Your task to perform on an android device: Open Youtube and go to the subscriptions tab Image 0: 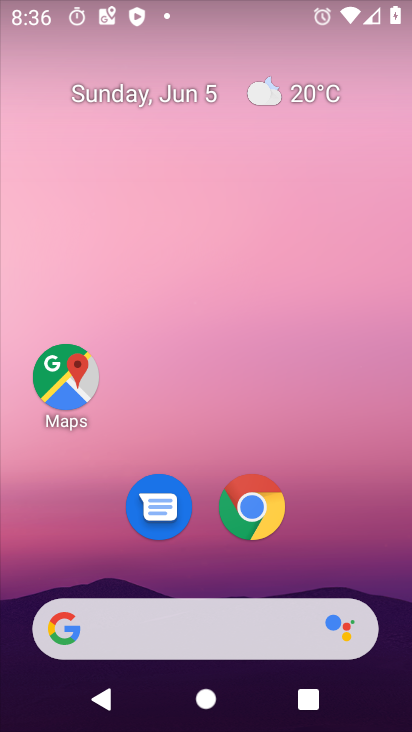
Step 0: drag from (372, 535) to (248, 11)
Your task to perform on an android device: Open Youtube and go to the subscriptions tab Image 1: 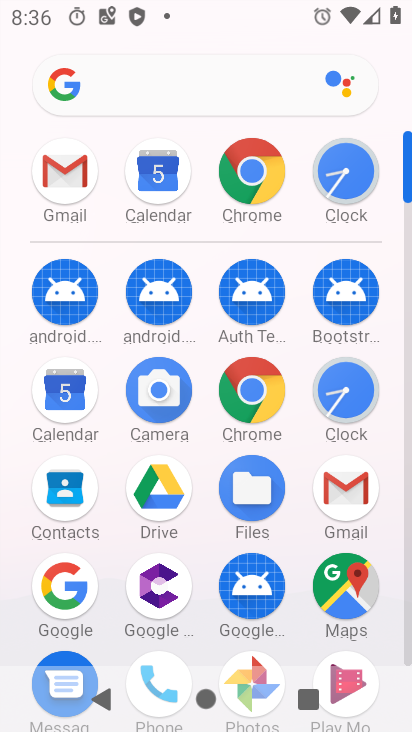
Step 1: drag from (11, 595) to (33, 260)
Your task to perform on an android device: Open Youtube and go to the subscriptions tab Image 2: 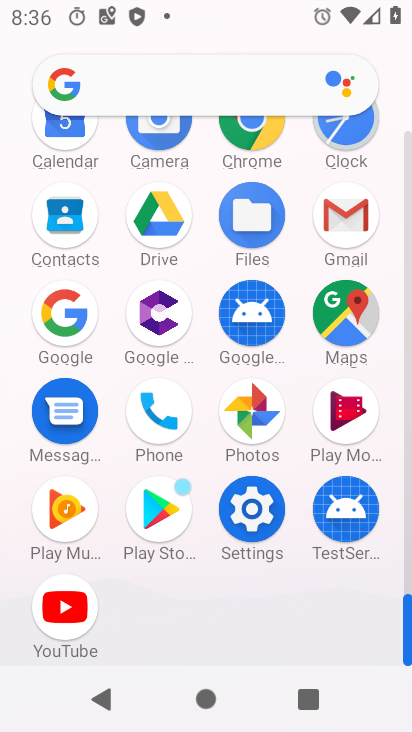
Step 2: click (64, 610)
Your task to perform on an android device: Open Youtube and go to the subscriptions tab Image 3: 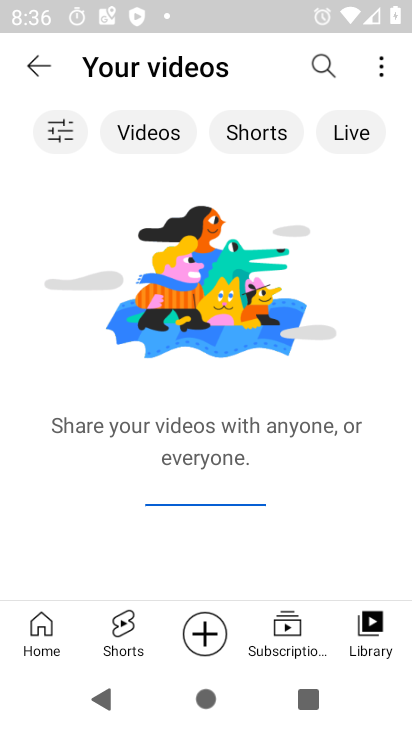
Step 3: click (33, 70)
Your task to perform on an android device: Open Youtube and go to the subscriptions tab Image 4: 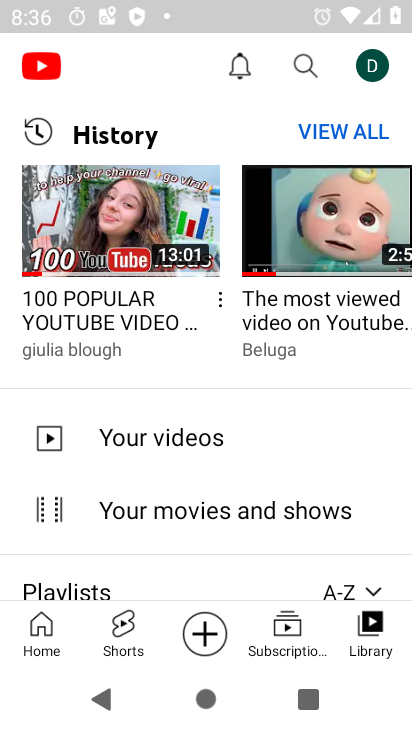
Step 4: click (383, 634)
Your task to perform on an android device: Open Youtube and go to the subscriptions tab Image 5: 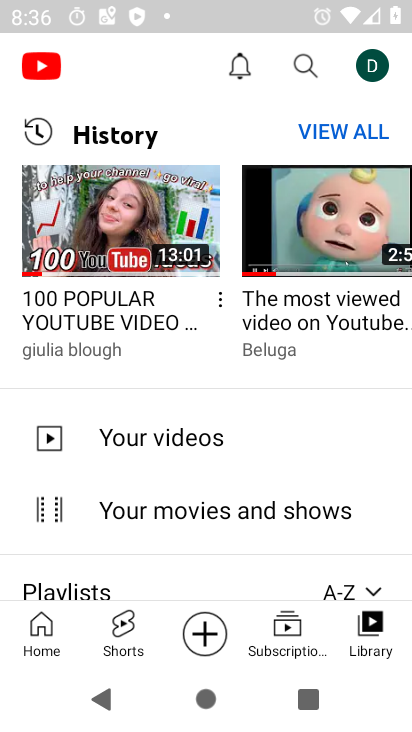
Step 5: click (364, 631)
Your task to perform on an android device: Open Youtube and go to the subscriptions tab Image 6: 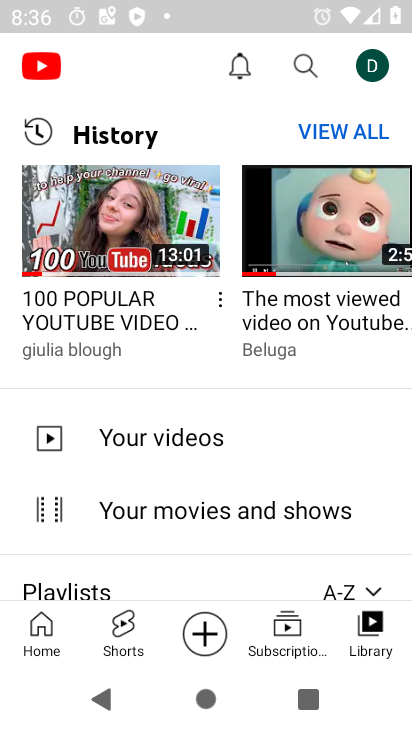
Step 6: click (182, 441)
Your task to perform on an android device: Open Youtube and go to the subscriptions tab Image 7: 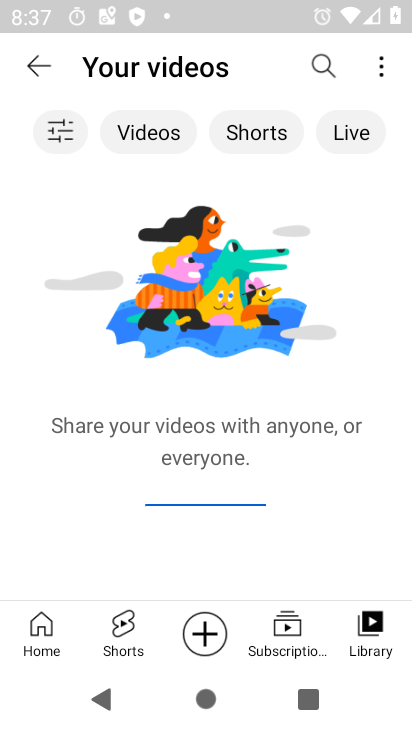
Step 7: task complete